Your task to perform on an android device: Toggle the flashlight Image 0: 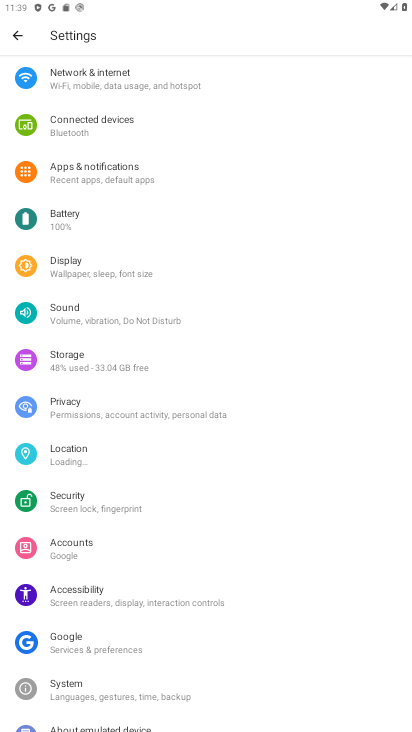
Step 0: click (130, 267)
Your task to perform on an android device: Toggle the flashlight Image 1: 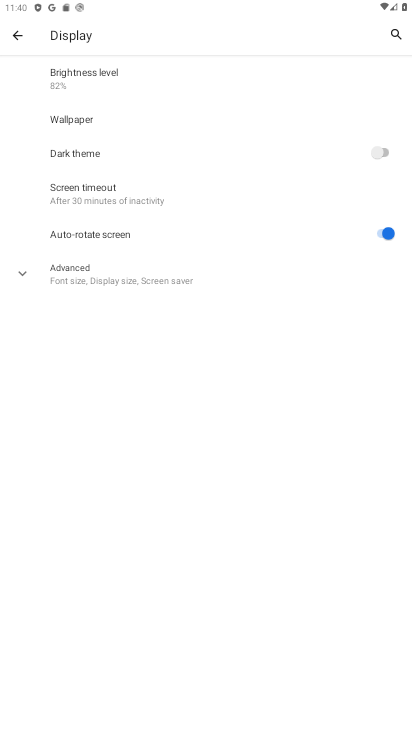
Step 1: click (96, 195)
Your task to perform on an android device: Toggle the flashlight Image 2: 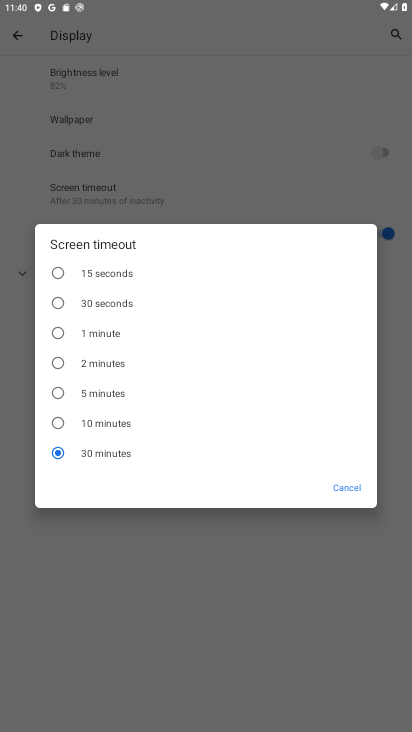
Step 2: task complete